Your task to perform on an android device: Show me the alarms in the clock app Image 0: 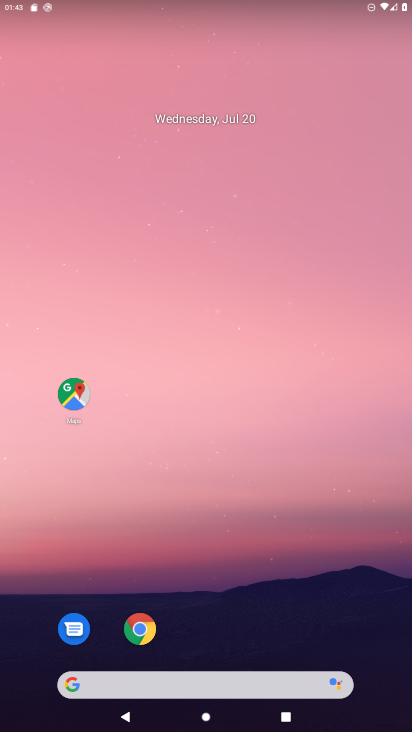
Step 0: drag from (172, 521) to (163, 63)
Your task to perform on an android device: Show me the alarms in the clock app Image 1: 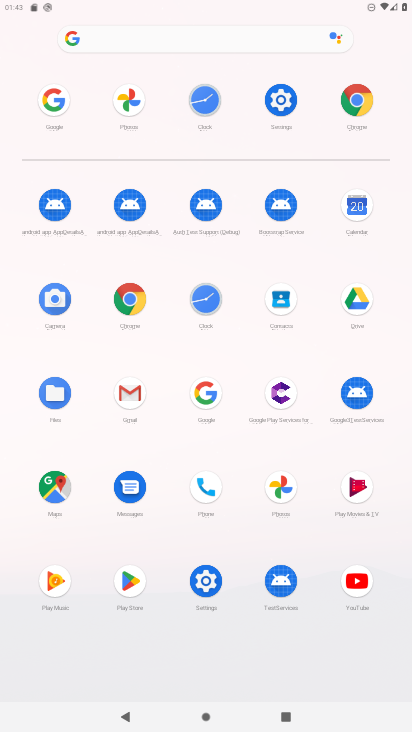
Step 1: click (208, 316)
Your task to perform on an android device: Show me the alarms in the clock app Image 2: 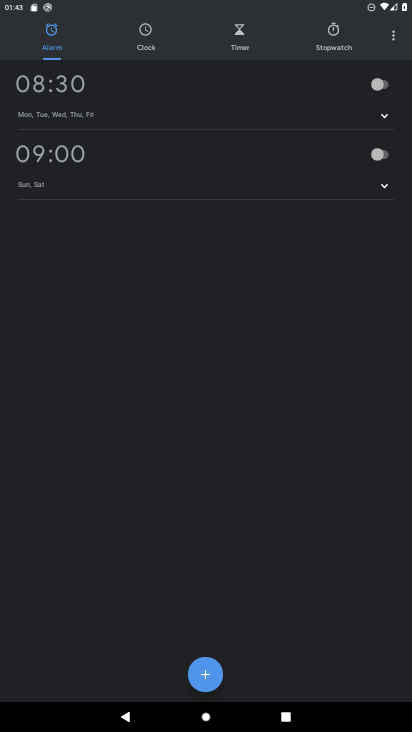
Step 2: task complete